Your task to perform on an android device: Open internet settings Image 0: 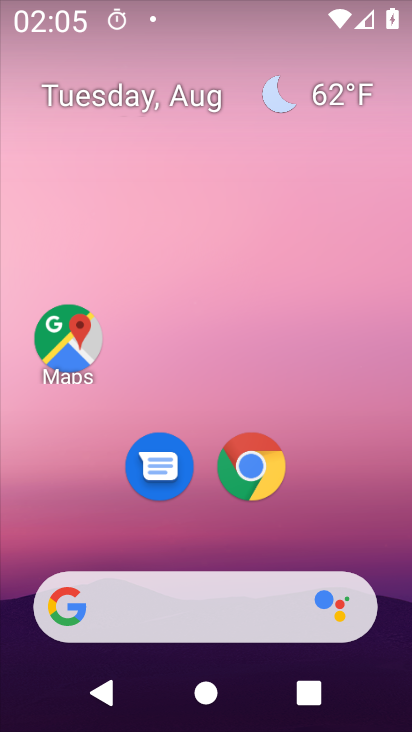
Step 0: press home button
Your task to perform on an android device: Open internet settings Image 1: 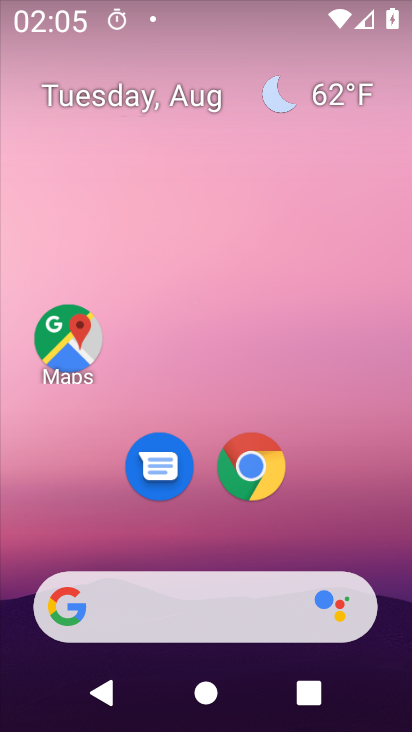
Step 1: drag from (376, 558) to (387, 188)
Your task to perform on an android device: Open internet settings Image 2: 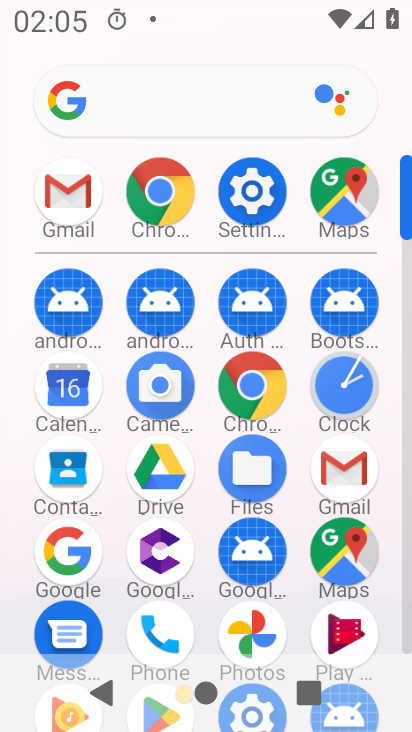
Step 2: click (264, 201)
Your task to perform on an android device: Open internet settings Image 3: 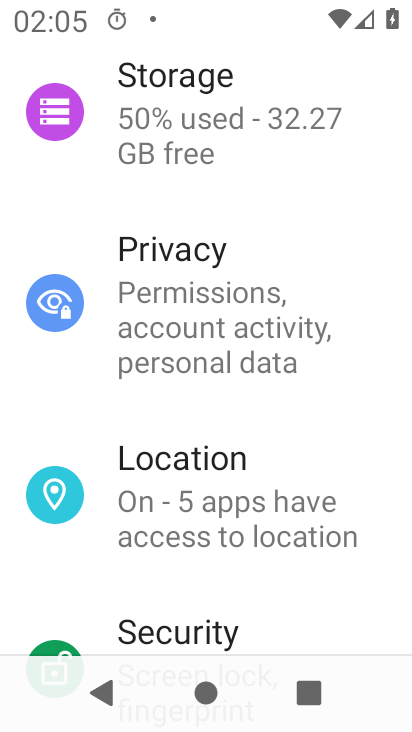
Step 3: drag from (357, 220) to (360, 308)
Your task to perform on an android device: Open internet settings Image 4: 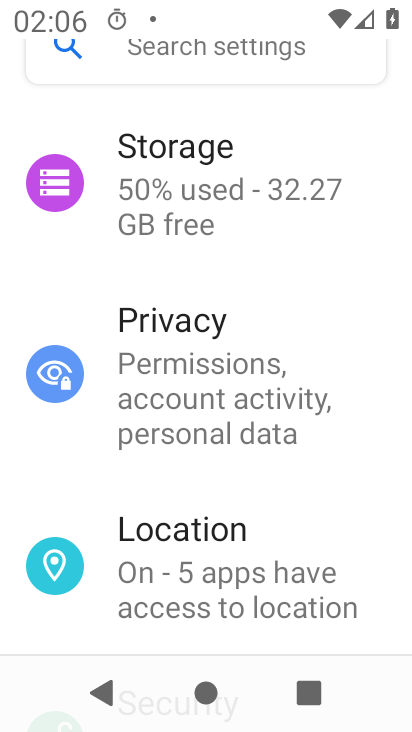
Step 4: drag from (363, 183) to (364, 283)
Your task to perform on an android device: Open internet settings Image 5: 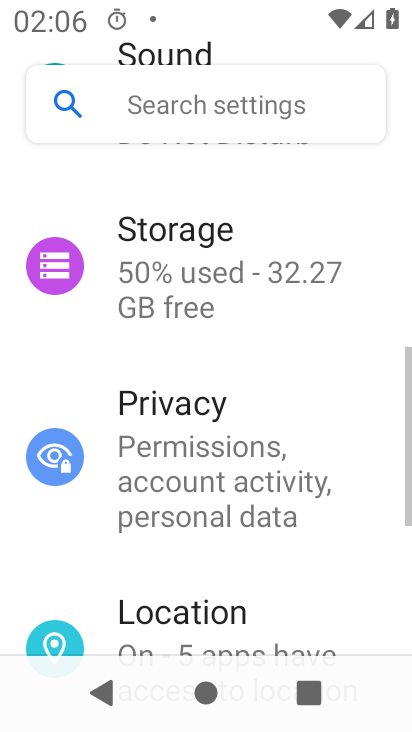
Step 5: drag from (361, 187) to (369, 285)
Your task to perform on an android device: Open internet settings Image 6: 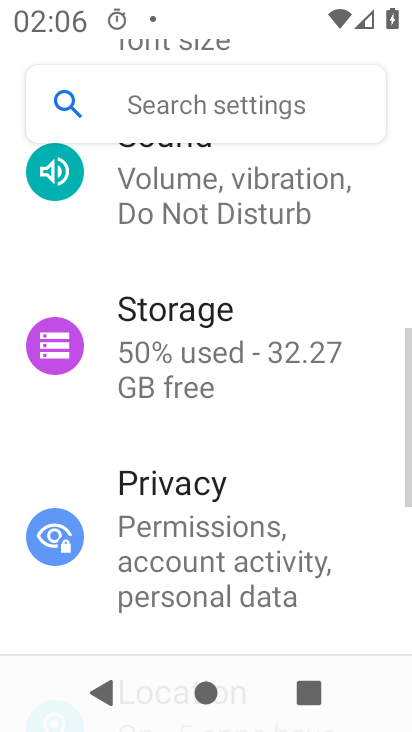
Step 6: drag from (374, 169) to (373, 267)
Your task to perform on an android device: Open internet settings Image 7: 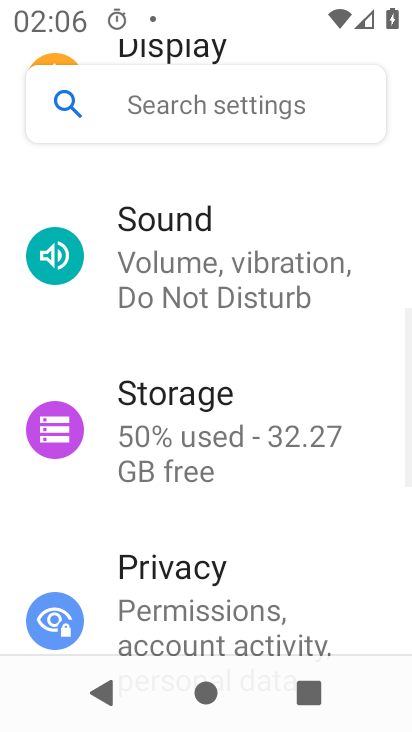
Step 7: drag from (377, 176) to (381, 271)
Your task to perform on an android device: Open internet settings Image 8: 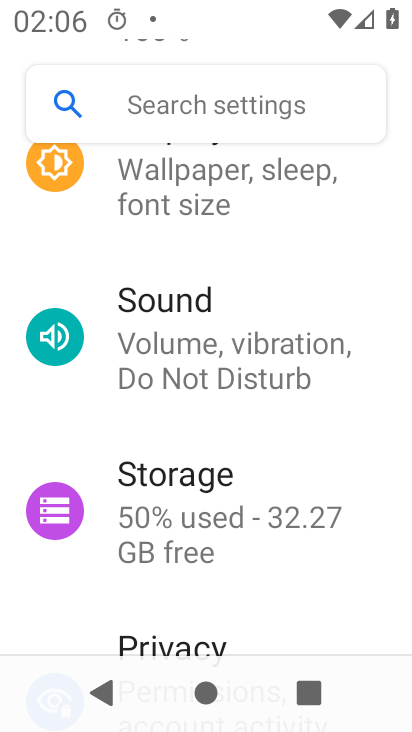
Step 8: drag from (386, 176) to (384, 268)
Your task to perform on an android device: Open internet settings Image 9: 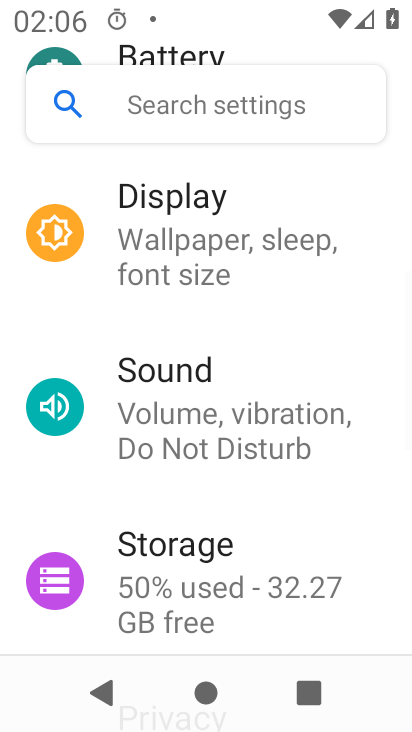
Step 9: drag from (369, 173) to (364, 264)
Your task to perform on an android device: Open internet settings Image 10: 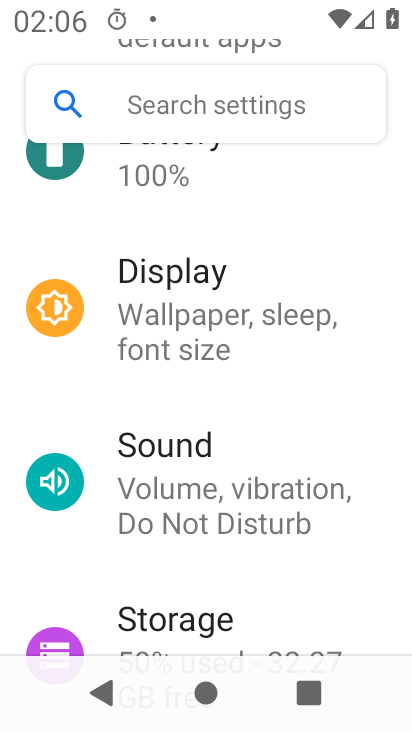
Step 10: drag from (369, 170) to (372, 259)
Your task to perform on an android device: Open internet settings Image 11: 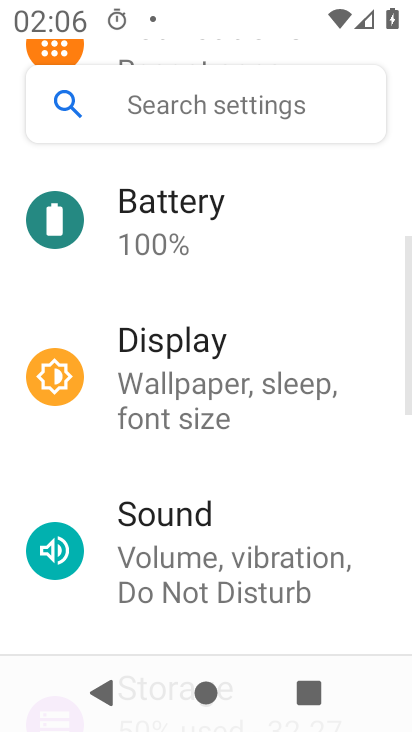
Step 11: drag from (366, 179) to (364, 274)
Your task to perform on an android device: Open internet settings Image 12: 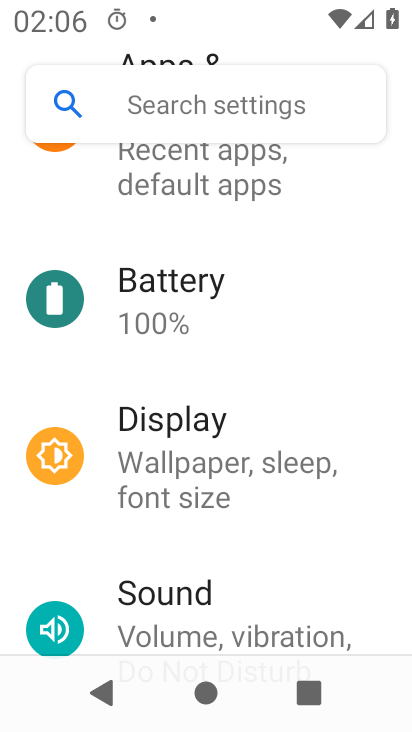
Step 12: drag from (366, 199) to (366, 271)
Your task to perform on an android device: Open internet settings Image 13: 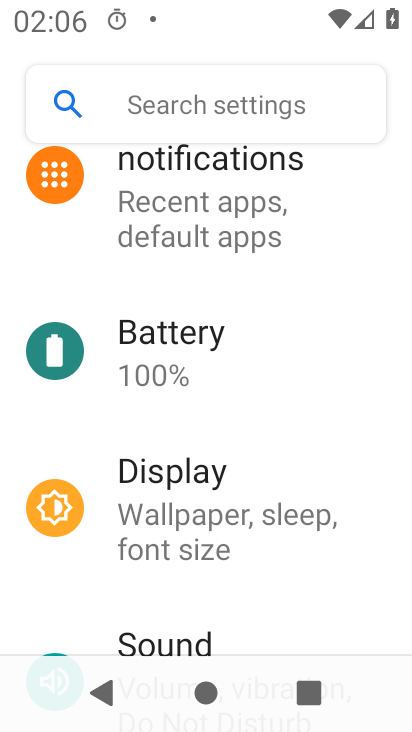
Step 13: drag from (368, 178) to (364, 274)
Your task to perform on an android device: Open internet settings Image 14: 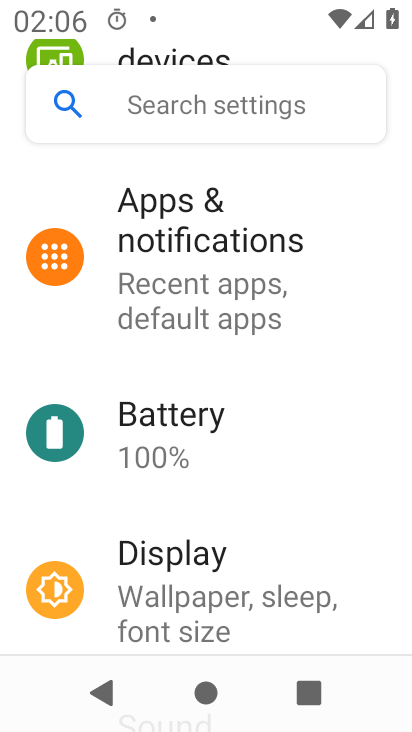
Step 14: drag from (360, 234) to (360, 290)
Your task to perform on an android device: Open internet settings Image 15: 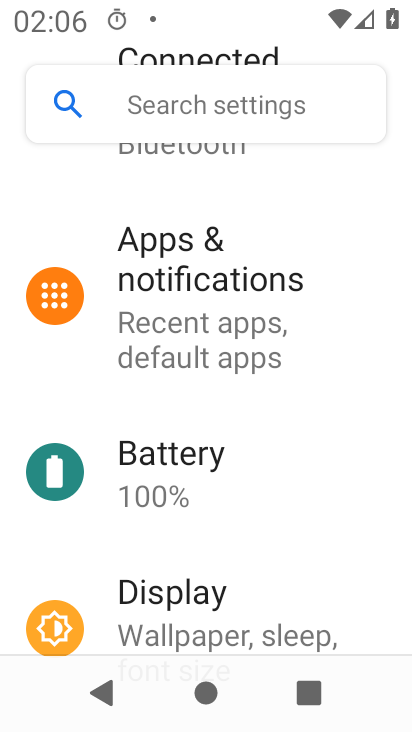
Step 15: drag from (358, 206) to (362, 355)
Your task to perform on an android device: Open internet settings Image 16: 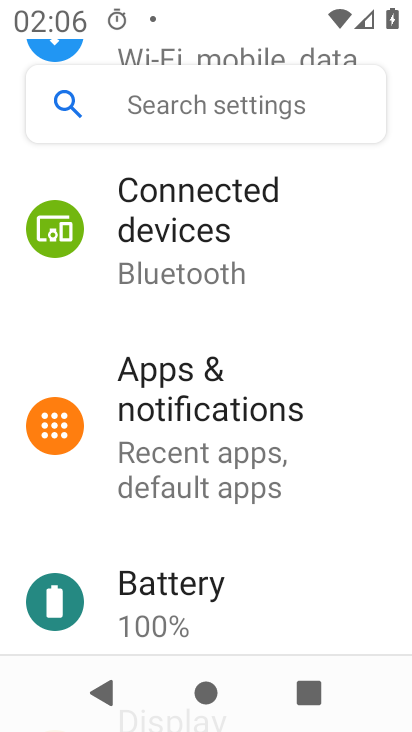
Step 16: drag from (366, 212) to (373, 345)
Your task to perform on an android device: Open internet settings Image 17: 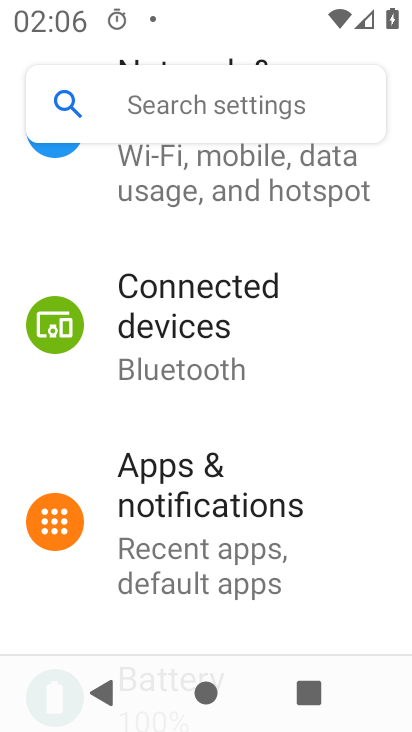
Step 17: drag from (385, 166) to (371, 369)
Your task to perform on an android device: Open internet settings Image 18: 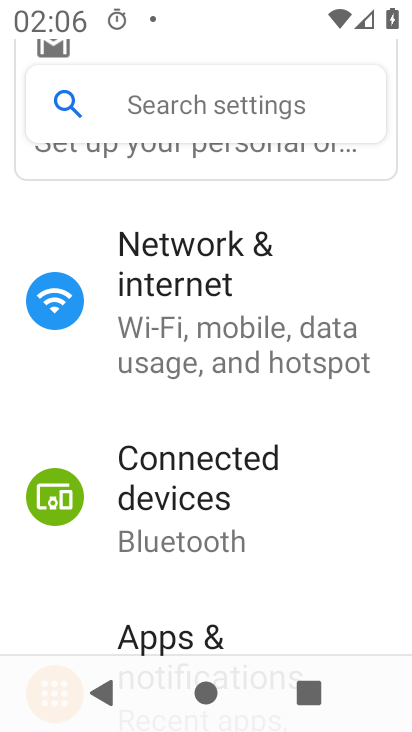
Step 18: click (218, 277)
Your task to perform on an android device: Open internet settings Image 19: 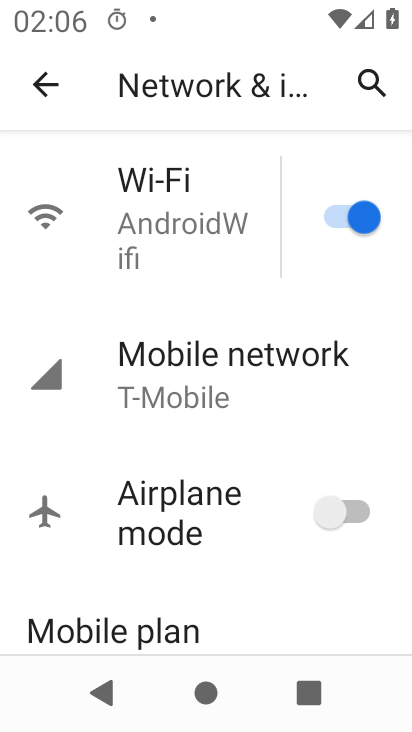
Step 19: task complete